Your task to perform on an android device: Open the Play Movies app and select the watchlist tab. Image 0: 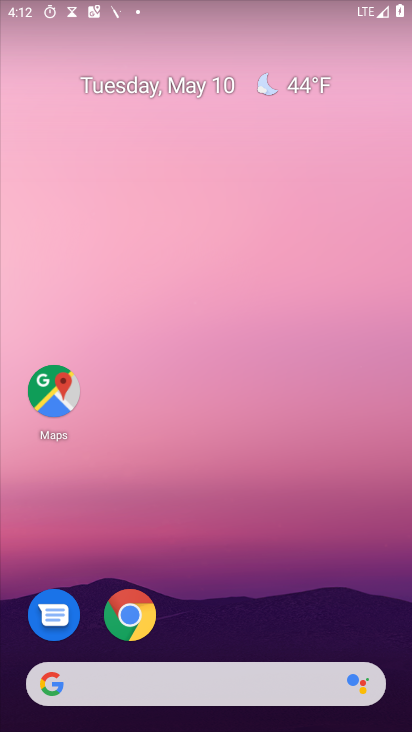
Step 0: drag from (331, 659) to (326, 0)
Your task to perform on an android device: Open the Play Movies app and select the watchlist tab. Image 1: 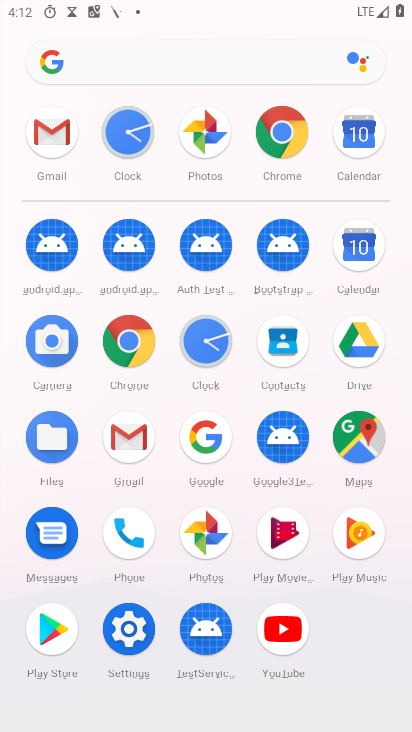
Step 1: click (283, 544)
Your task to perform on an android device: Open the Play Movies app and select the watchlist tab. Image 2: 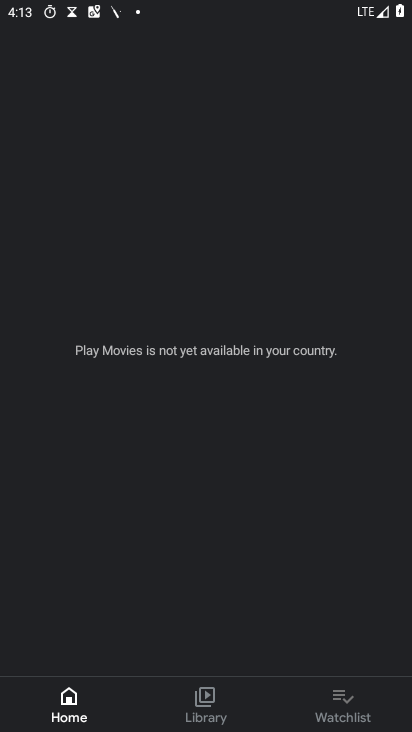
Step 2: drag from (333, 715) to (259, 715)
Your task to perform on an android device: Open the Play Movies app and select the watchlist tab. Image 3: 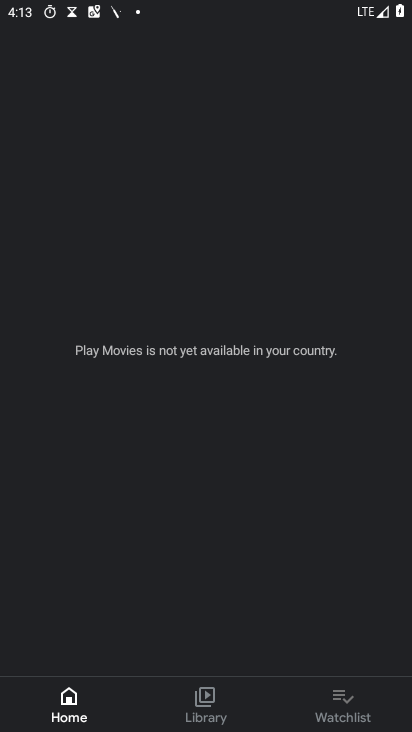
Step 3: click (339, 710)
Your task to perform on an android device: Open the Play Movies app and select the watchlist tab. Image 4: 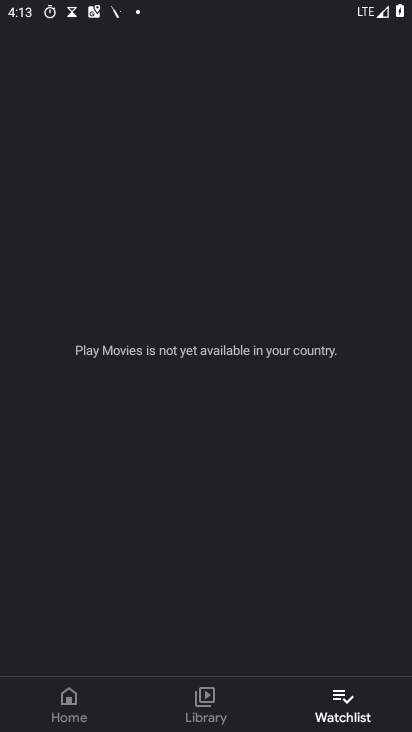
Step 4: task complete